Your task to perform on an android device: Open Chrome and go to settings Image 0: 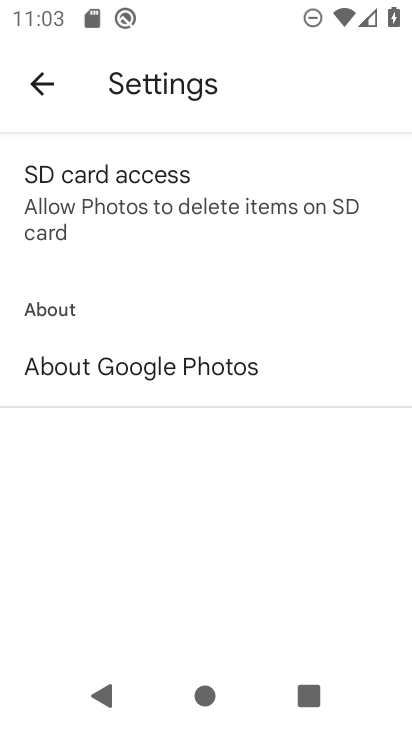
Step 0: press home button
Your task to perform on an android device: Open Chrome and go to settings Image 1: 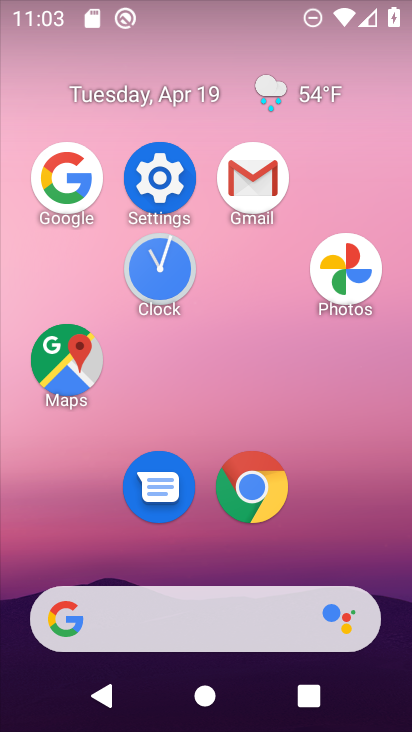
Step 1: click (242, 481)
Your task to perform on an android device: Open Chrome and go to settings Image 2: 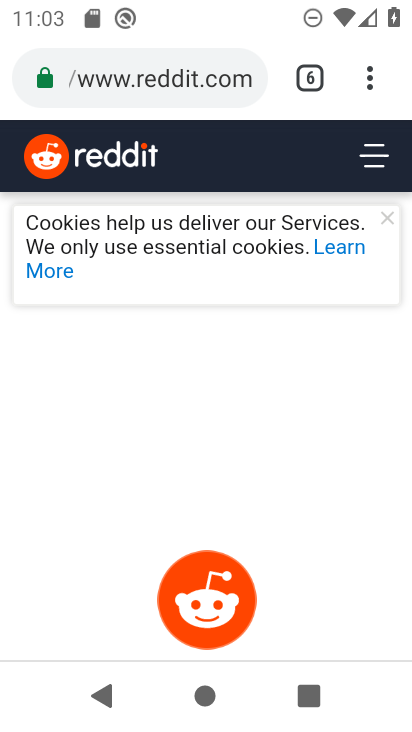
Step 2: click (371, 83)
Your task to perform on an android device: Open Chrome and go to settings Image 3: 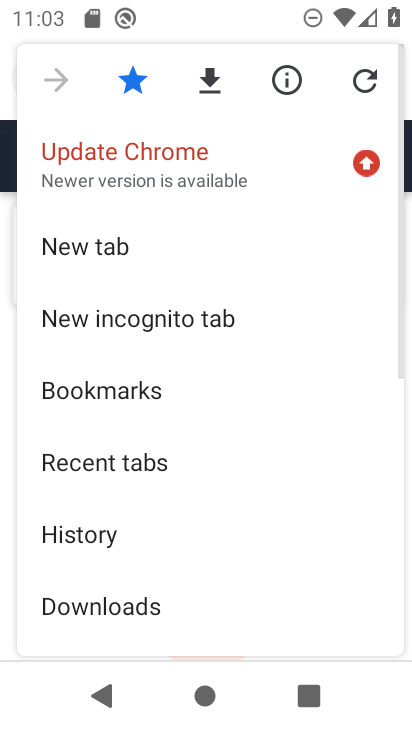
Step 3: drag from (211, 471) to (204, 139)
Your task to perform on an android device: Open Chrome and go to settings Image 4: 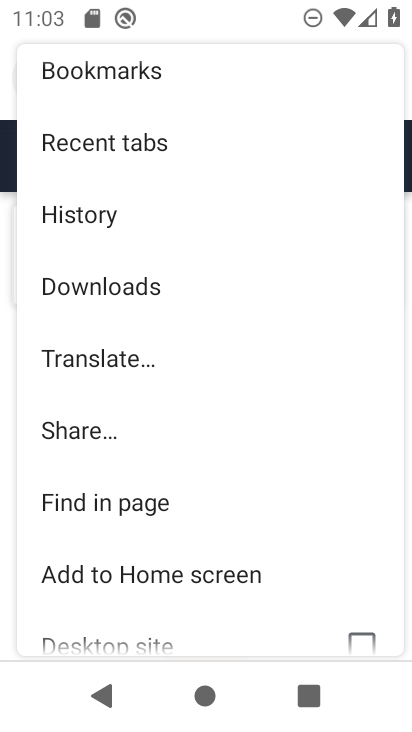
Step 4: drag from (232, 260) to (241, 92)
Your task to perform on an android device: Open Chrome and go to settings Image 5: 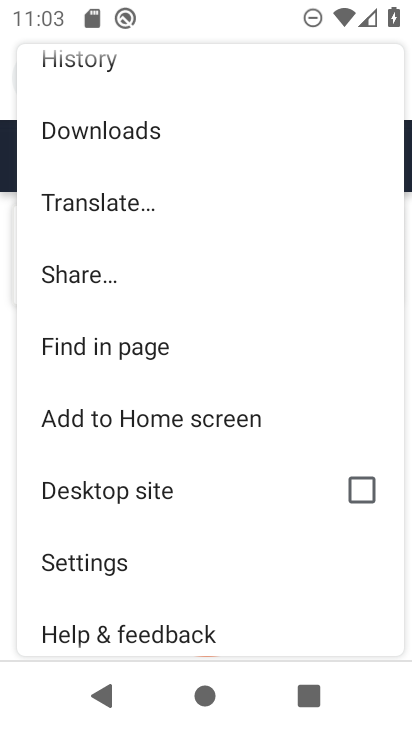
Step 5: click (171, 573)
Your task to perform on an android device: Open Chrome and go to settings Image 6: 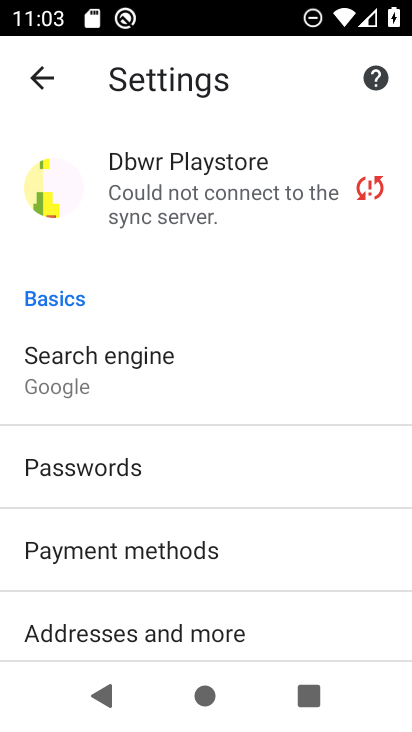
Step 6: task complete